Your task to perform on an android device: show emergency info Image 0: 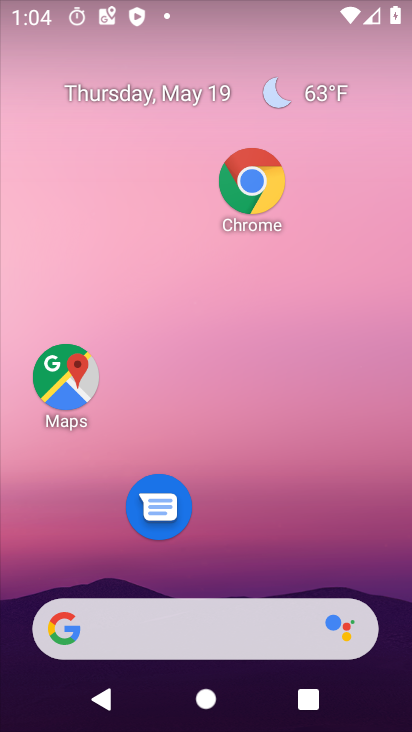
Step 0: drag from (245, 564) to (19, 333)
Your task to perform on an android device: show emergency info Image 1: 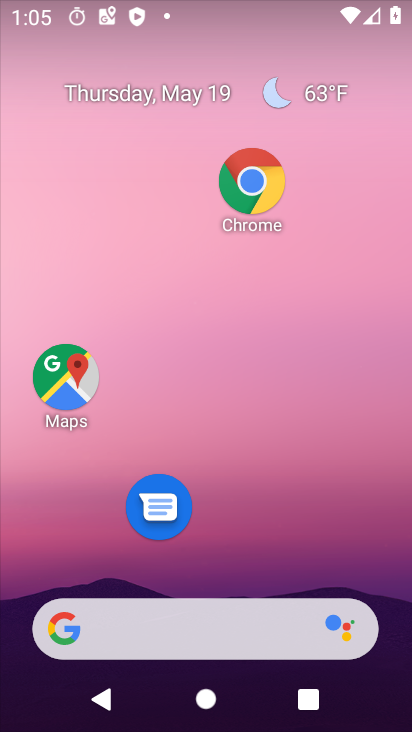
Step 1: drag from (263, 324) to (278, 89)
Your task to perform on an android device: show emergency info Image 2: 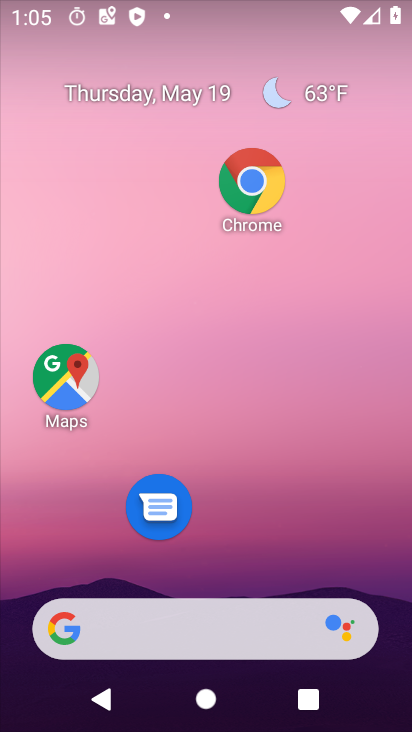
Step 2: drag from (248, 579) to (265, 121)
Your task to perform on an android device: show emergency info Image 3: 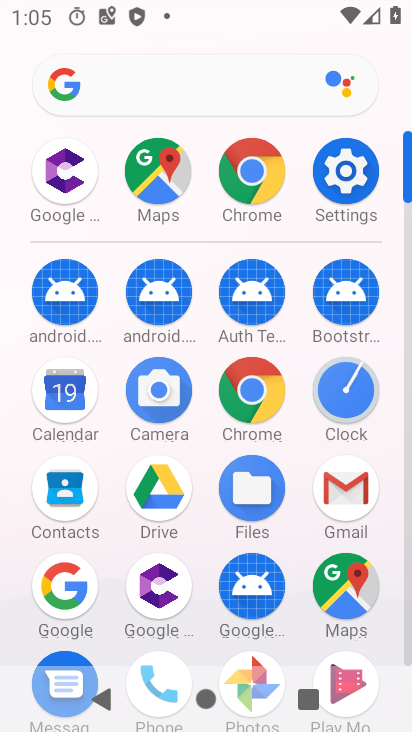
Step 3: click (346, 193)
Your task to perform on an android device: show emergency info Image 4: 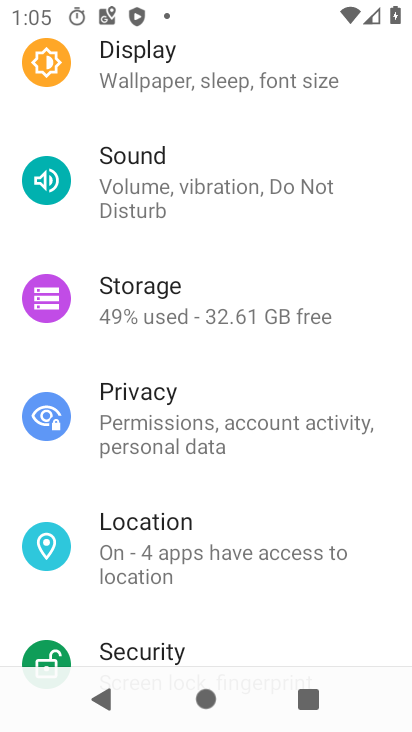
Step 4: drag from (204, 302) to (225, 645)
Your task to perform on an android device: show emergency info Image 5: 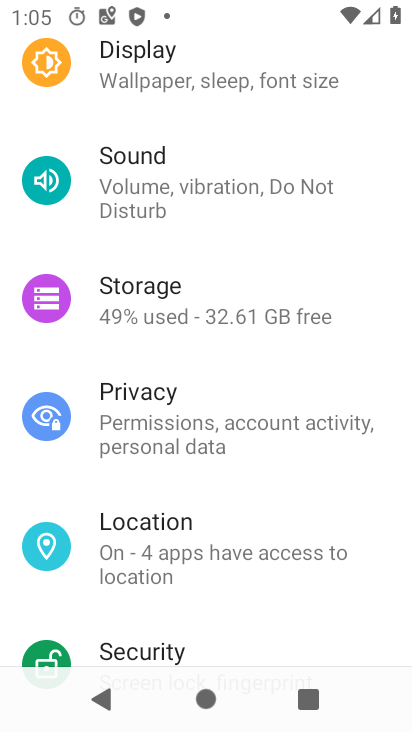
Step 5: drag from (206, 537) to (265, 107)
Your task to perform on an android device: show emergency info Image 6: 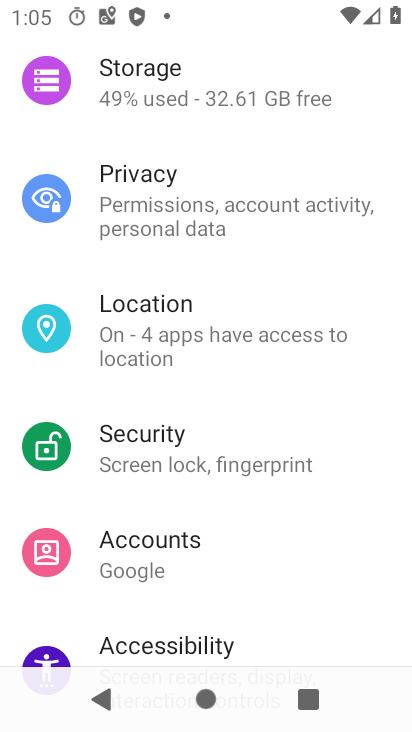
Step 6: drag from (188, 563) to (238, 94)
Your task to perform on an android device: show emergency info Image 7: 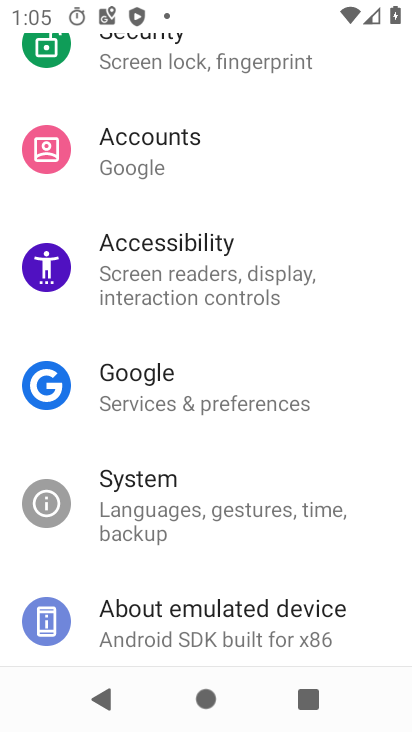
Step 7: drag from (200, 529) to (247, 223)
Your task to perform on an android device: show emergency info Image 8: 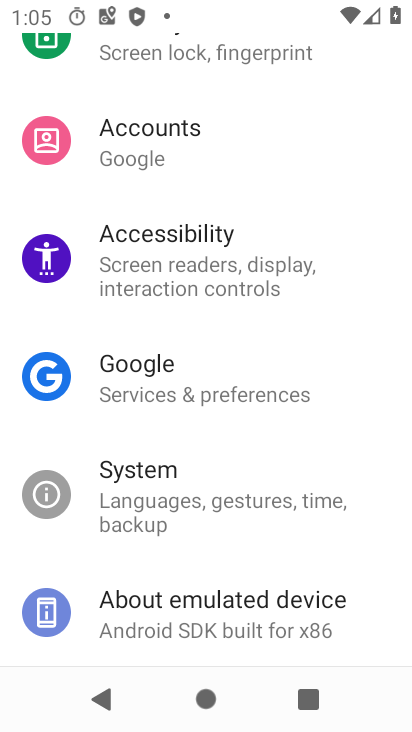
Step 8: click (169, 626)
Your task to perform on an android device: show emergency info Image 9: 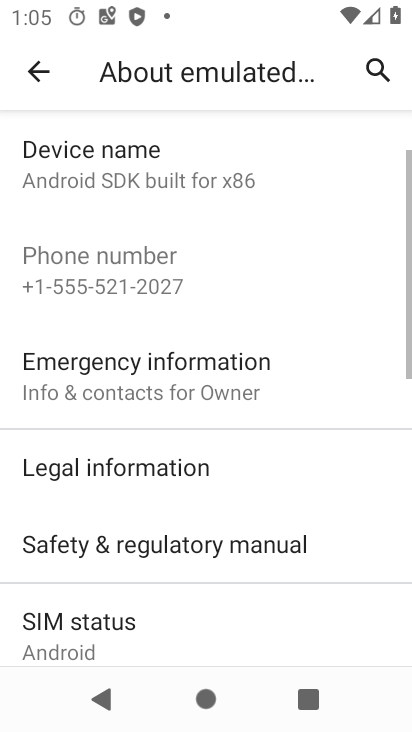
Step 9: click (198, 388)
Your task to perform on an android device: show emergency info Image 10: 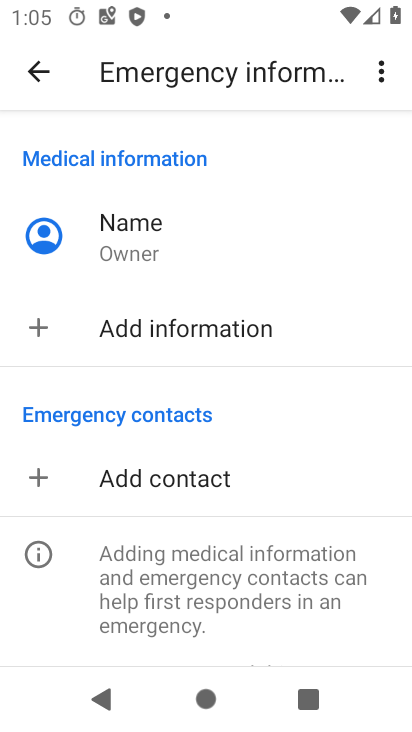
Step 10: task complete